Your task to perform on an android device: change alarm snooze length Image 0: 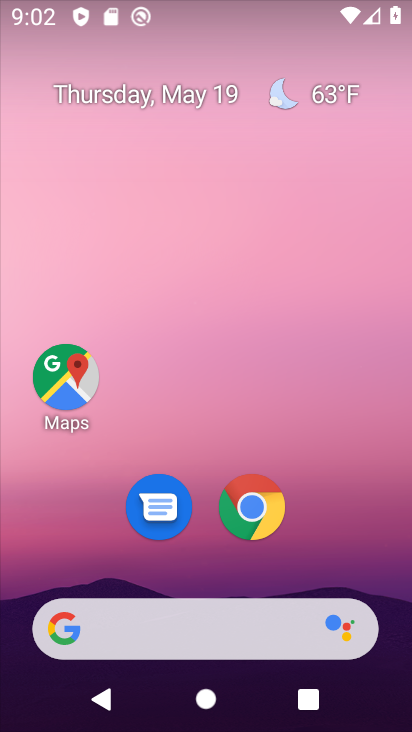
Step 0: drag from (382, 556) to (312, 13)
Your task to perform on an android device: change alarm snooze length Image 1: 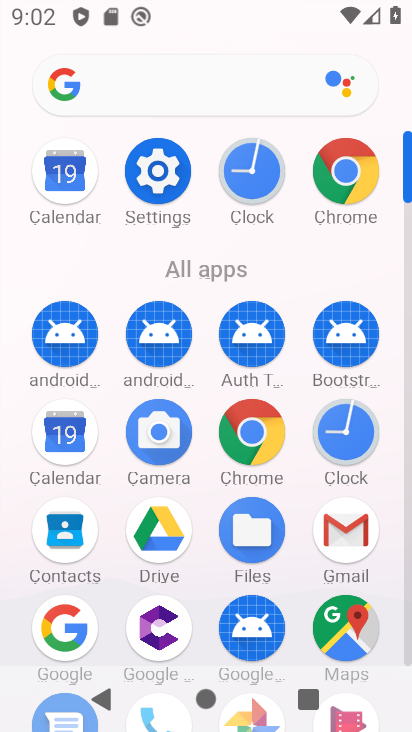
Step 1: click (231, 177)
Your task to perform on an android device: change alarm snooze length Image 2: 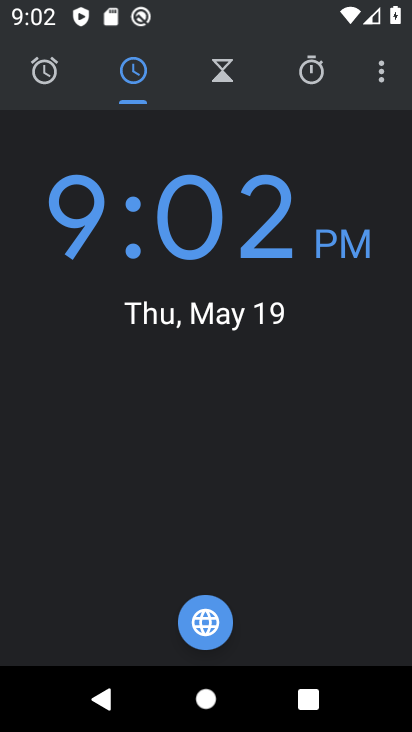
Step 2: click (383, 84)
Your task to perform on an android device: change alarm snooze length Image 3: 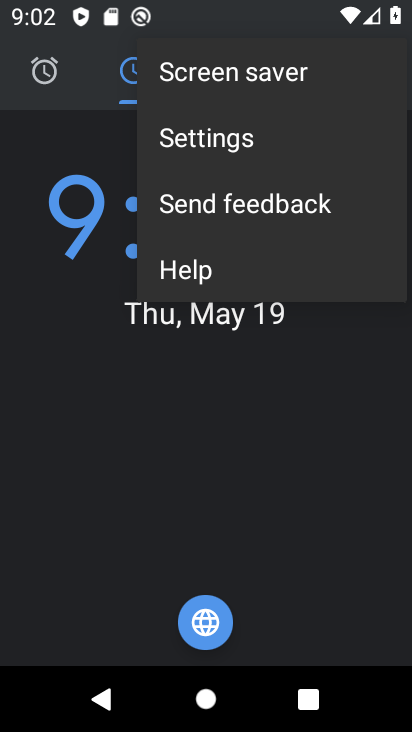
Step 3: click (355, 147)
Your task to perform on an android device: change alarm snooze length Image 4: 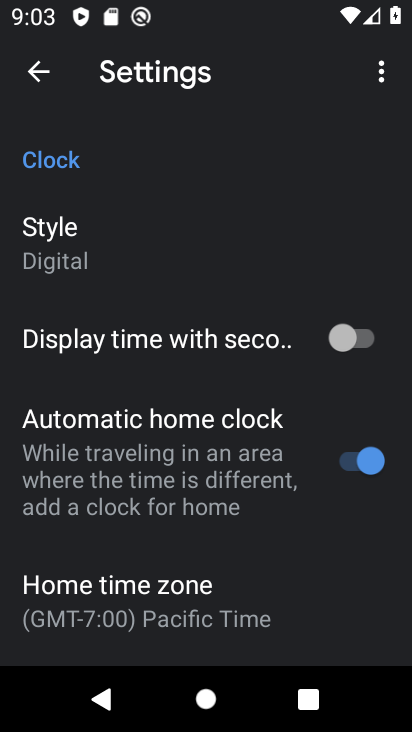
Step 4: drag from (239, 568) to (170, 88)
Your task to perform on an android device: change alarm snooze length Image 5: 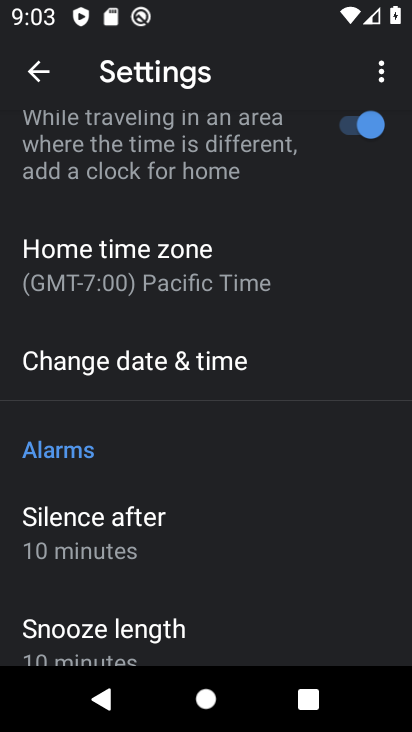
Step 5: click (228, 654)
Your task to perform on an android device: change alarm snooze length Image 6: 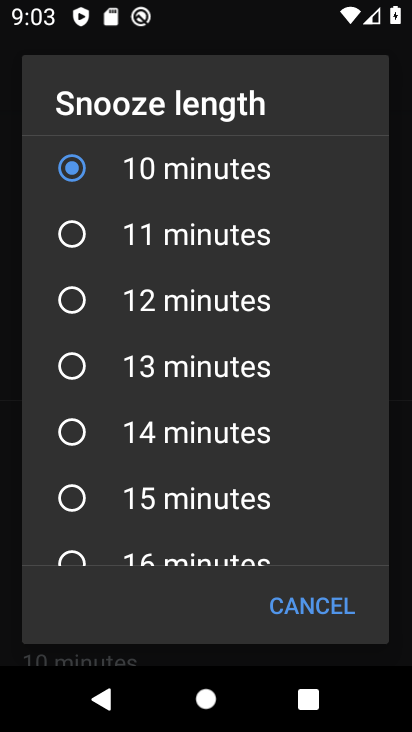
Step 6: click (244, 517)
Your task to perform on an android device: change alarm snooze length Image 7: 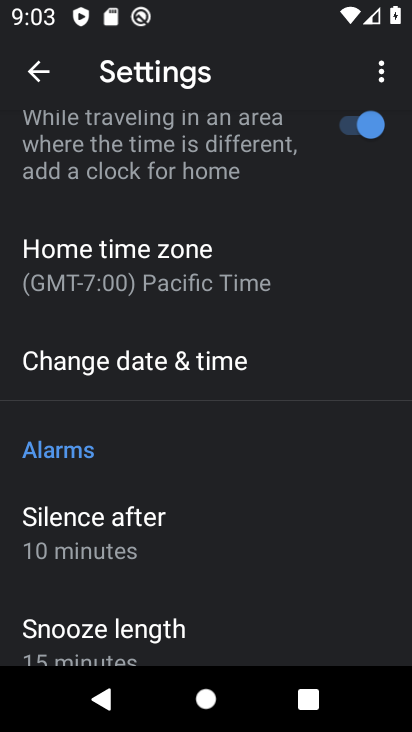
Step 7: task complete